Your task to perform on an android device: check android version Image 0: 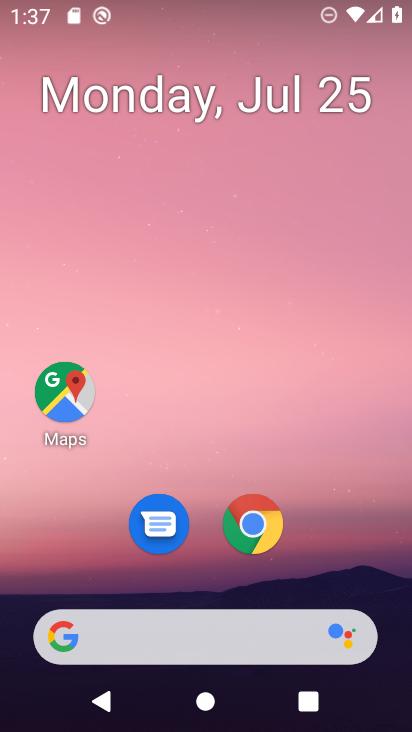
Step 0: drag from (180, 631) to (272, 34)
Your task to perform on an android device: check android version Image 1: 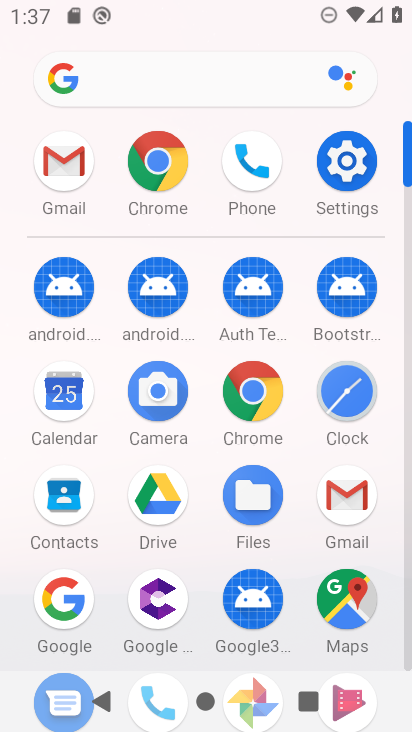
Step 1: click (350, 167)
Your task to perform on an android device: check android version Image 2: 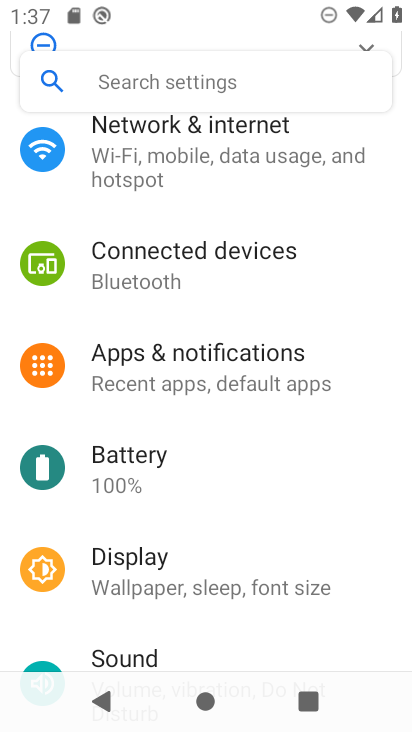
Step 2: task complete